Your task to perform on an android device: turn off sleep mode Image 0: 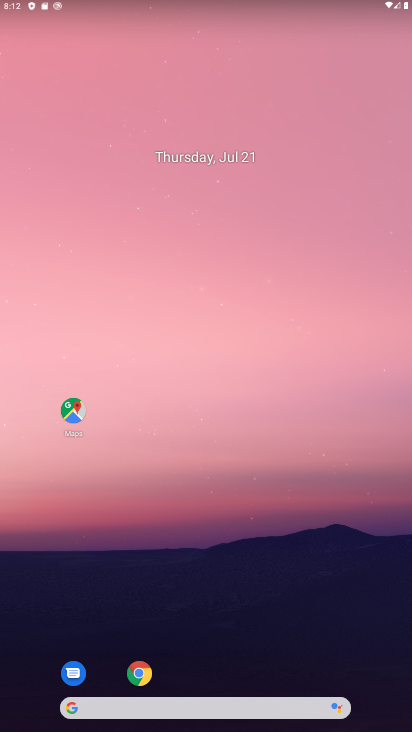
Step 0: drag from (220, 684) to (207, 281)
Your task to perform on an android device: turn off sleep mode Image 1: 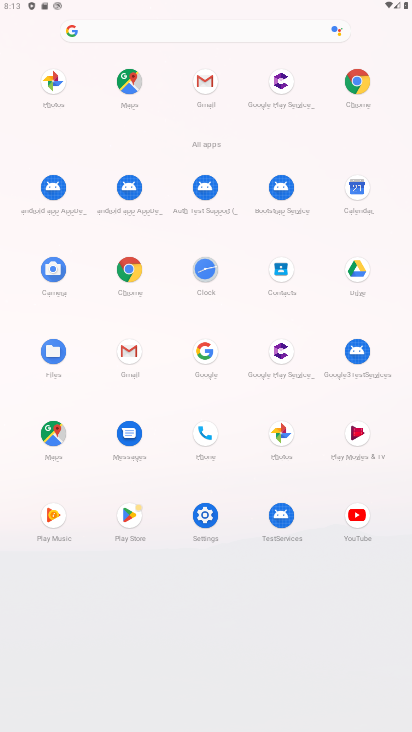
Step 1: click (206, 510)
Your task to perform on an android device: turn off sleep mode Image 2: 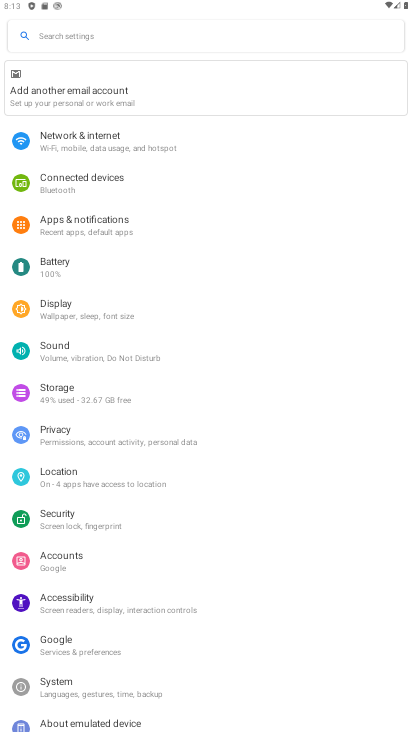
Step 2: click (78, 316)
Your task to perform on an android device: turn off sleep mode Image 3: 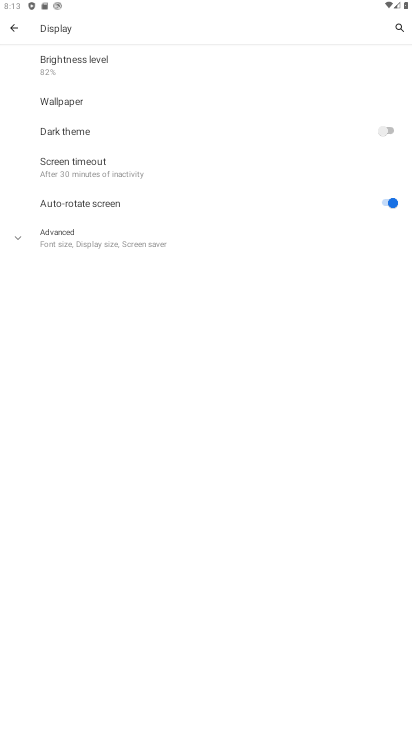
Step 3: click (96, 170)
Your task to perform on an android device: turn off sleep mode Image 4: 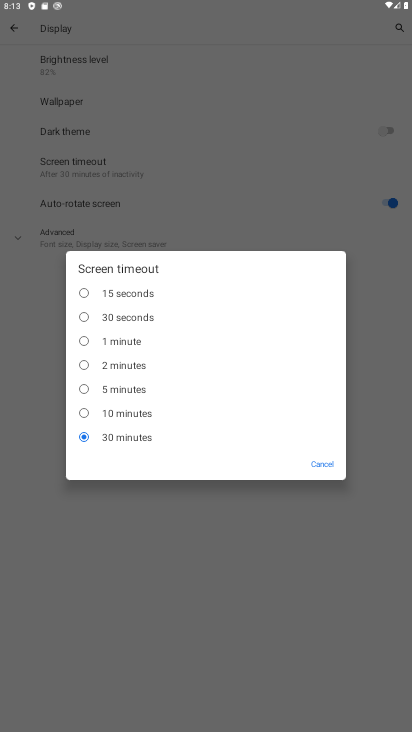
Step 4: click (128, 315)
Your task to perform on an android device: turn off sleep mode Image 5: 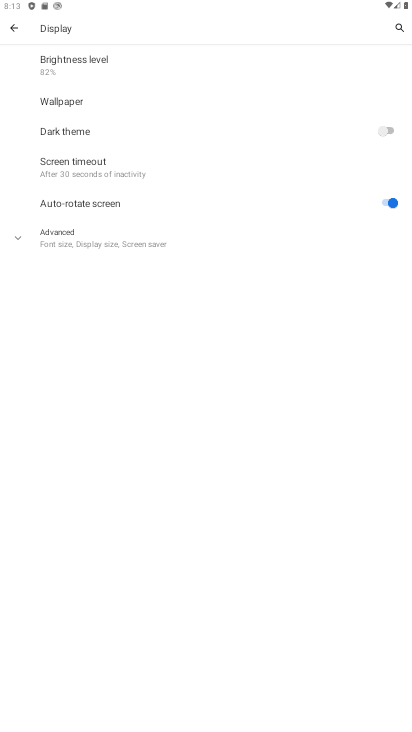
Step 5: task complete